Your task to perform on an android device: turn pop-ups off in chrome Image 0: 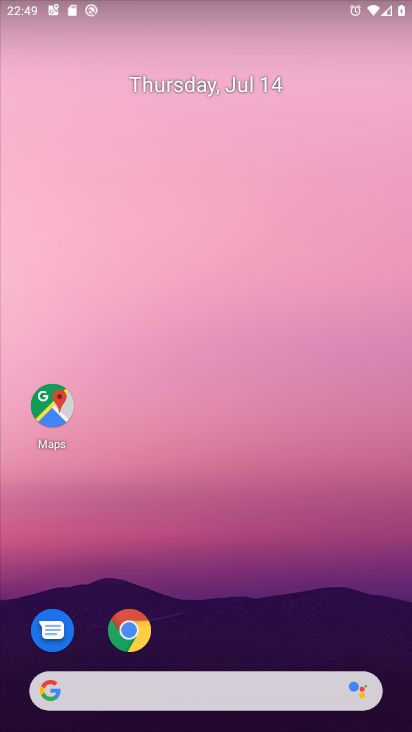
Step 0: click (266, 132)
Your task to perform on an android device: turn pop-ups off in chrome Image 1: 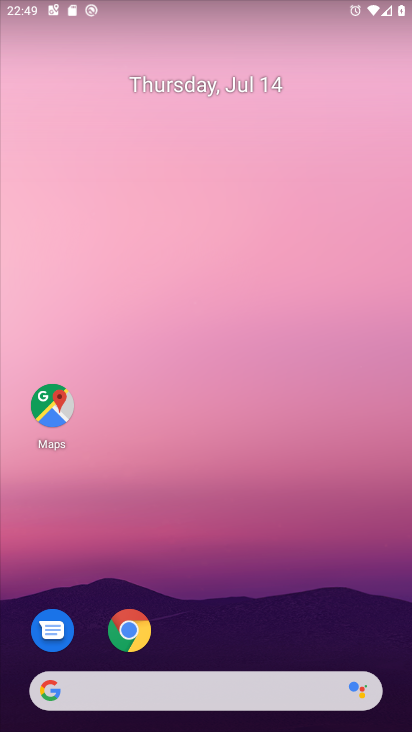
Step 1: click (129, 621)
Your task to perform on an android device: turn pop-ups off in chrome Image 2: 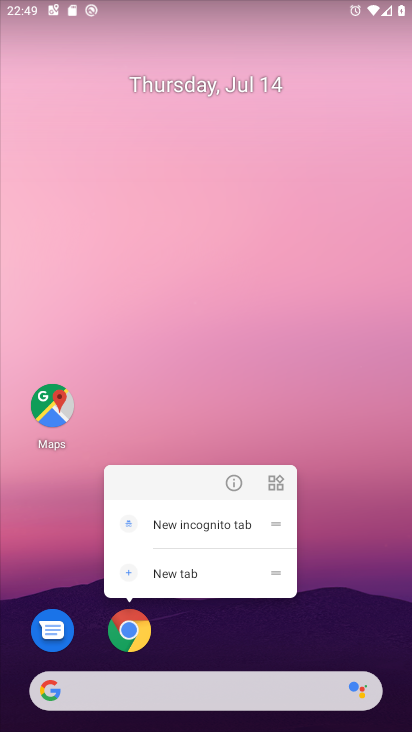
Step 2: click (229, 483)
Your task to perform on an android device: turn pop-ups off in chrome Image 3: 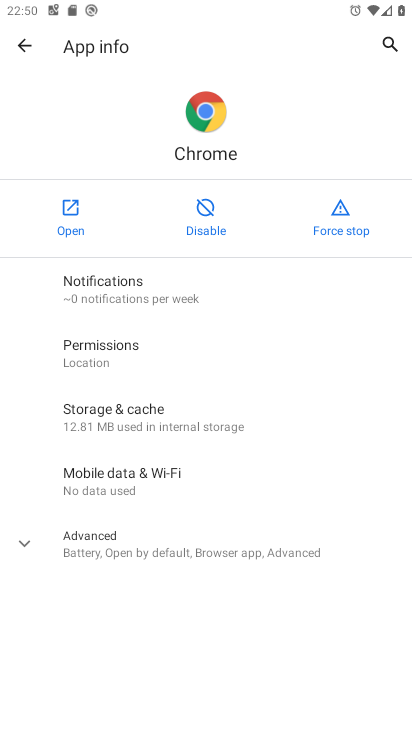
Step 3: click (63, 223)
Your task to perform on an android device: turn pop-ups off in chrome Image 4: 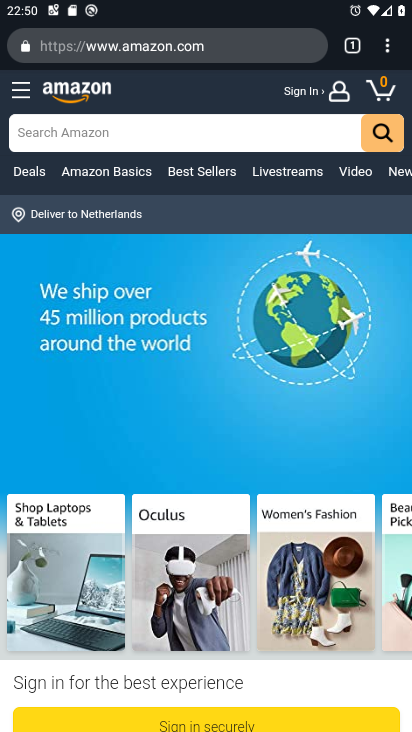
Step 4: drag from (209, 661) to (226, 234)
Your task to perform on an android device: turn pop-ups off in chrome Image 5: 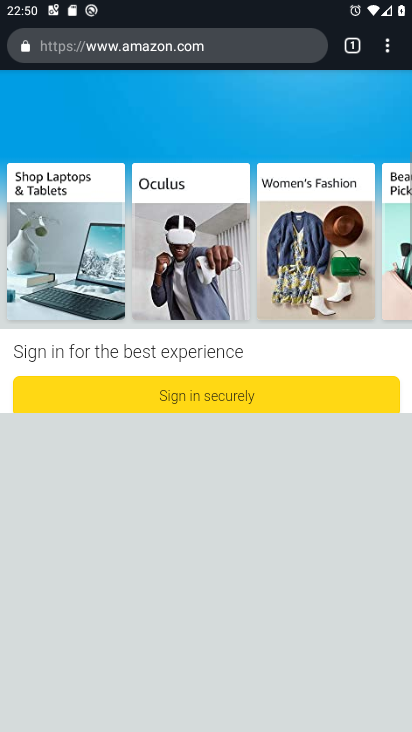
Step 5: drag from (249, 184) to (317, 716)
Your task to perform on an android device: turn pop-ups off in chrome Image 6: 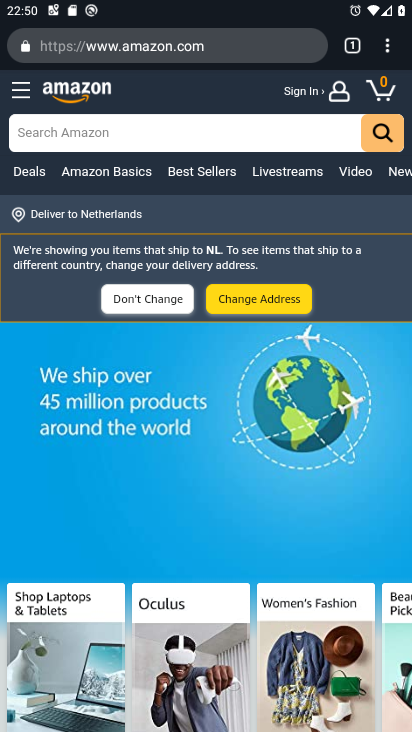
Step 6: click (387, 49)
Your task to perform on an android device: turn pop-ups off in chrome Image 7: 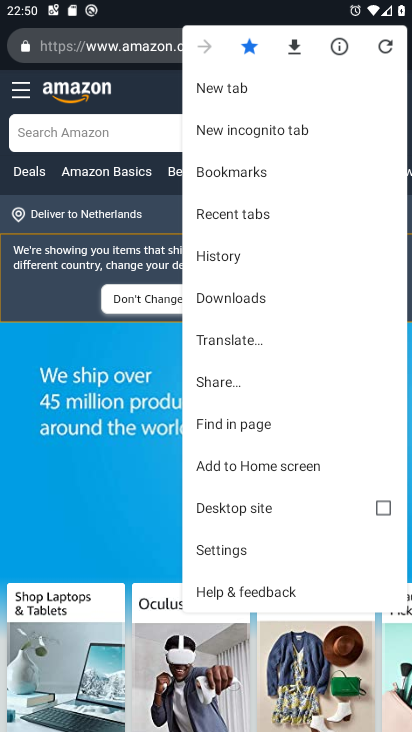
Step 7: click (226, 545)
Your task to perform on an android device: turn pop-ups off in chrome Image 8: 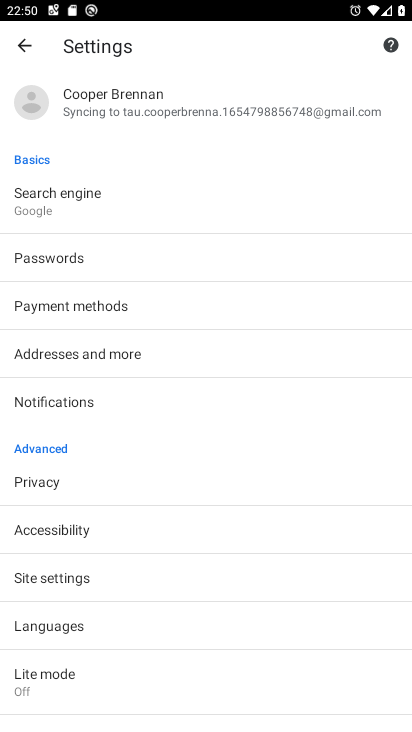
Step 8: click (49, 577)
Your task to perform on an android device: turn pop-ups off in chrome Image 9: 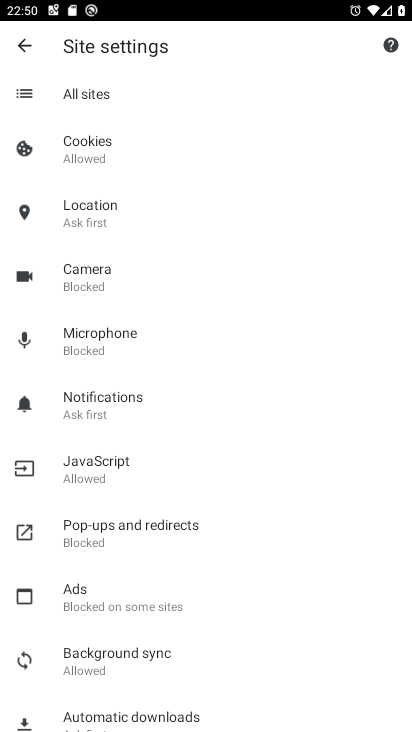
Step 9: click (129, 540)
Your task to perform on an android device: turn pop-ups off in chrome Image 10: 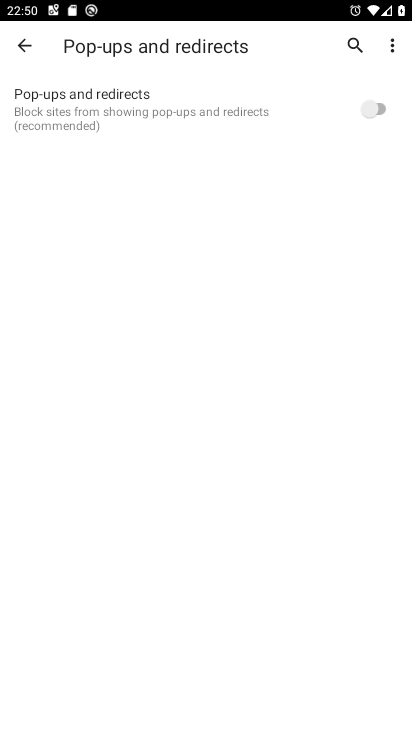
Step 10: task complete